Your task to perform on an android device: turn on showing notifications on the lock screen Image 0: 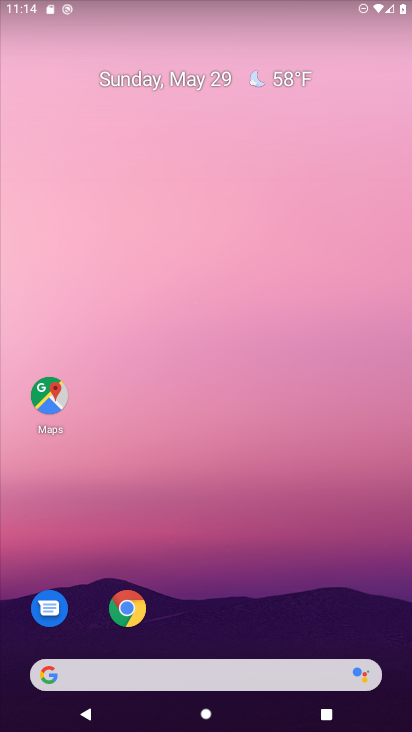
Step 0: drag from (230, 653) to (279, 208)
Your task to perform on an android device: turn on showing notifications on the lock screen Image 1: 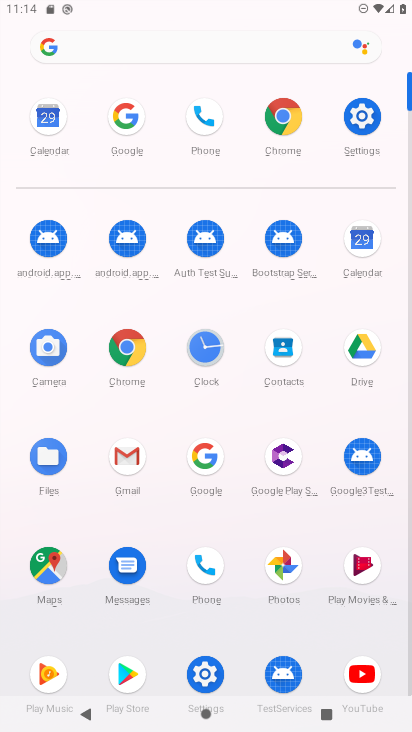
Step 1: click (217, 452)
Your task to perform on an android device: turn on showing notifications on the lock screen Image 2: 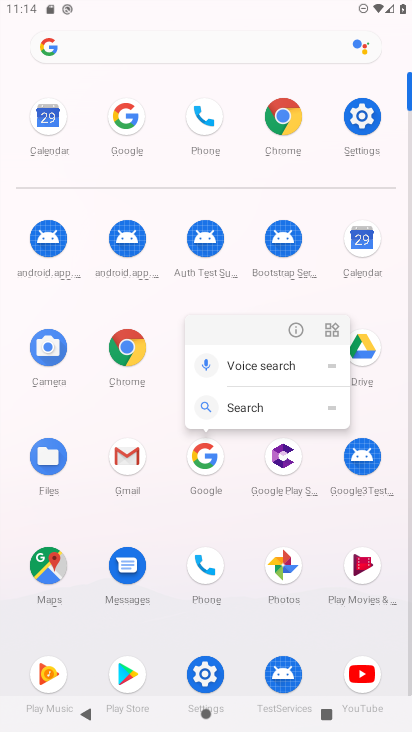
Step 2: click (200, 449)
Your task to perform on an android device: turn on showing notifications on the lock screen Image 3: 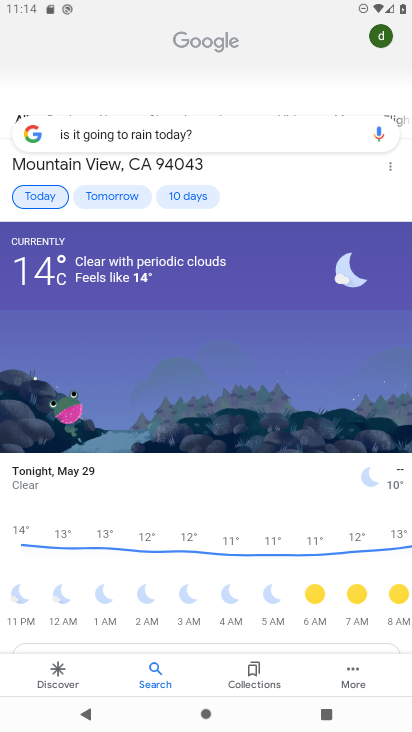
Step 3: click (226, 134)
Your task to perform on an android device: turn on showing notifications on the lock screen Image 4: 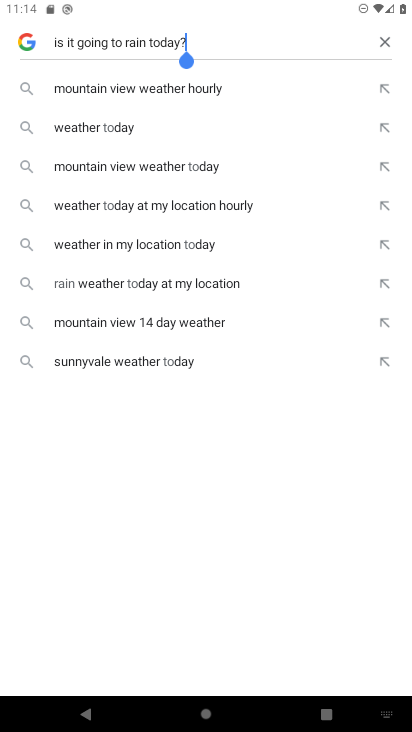
Step 4: click (378, 46)
Your task to perform on an android device: turn on showing notifications on the lock screen Image 5: 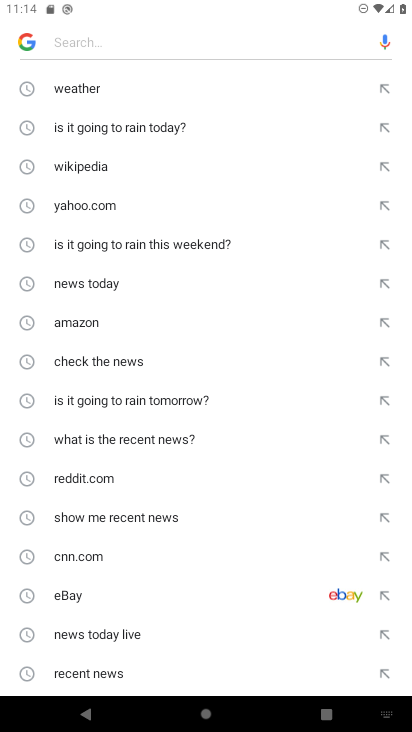
Step 5: press home button
Your task to perform on an android device: turn on showing notifications on the lock screen Image 6: 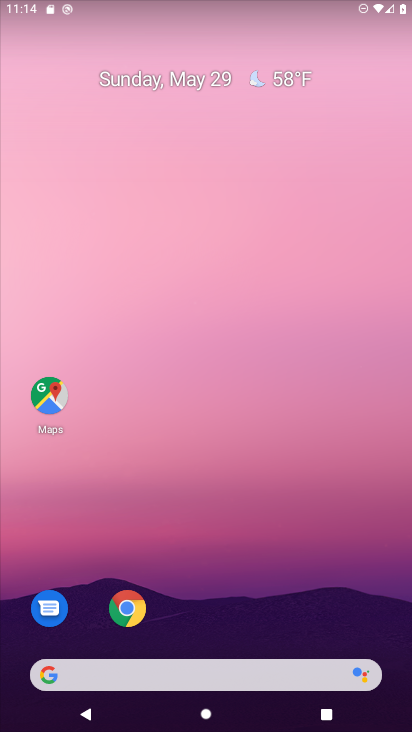
Step 6: drag from (248, 645) to (237, 248)
Your task to perform on an android device: turn on showing notifications on the lock screen Image 7: 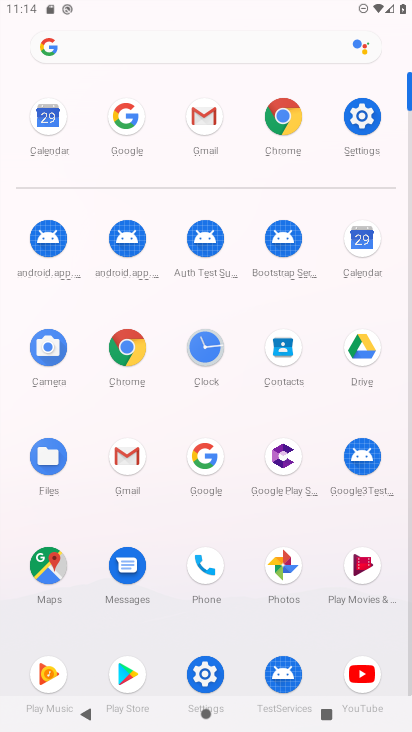
Step 7: click (366, 124)
Your task to perform on an android device: turn on showing notifications on the lock screen Image 8: 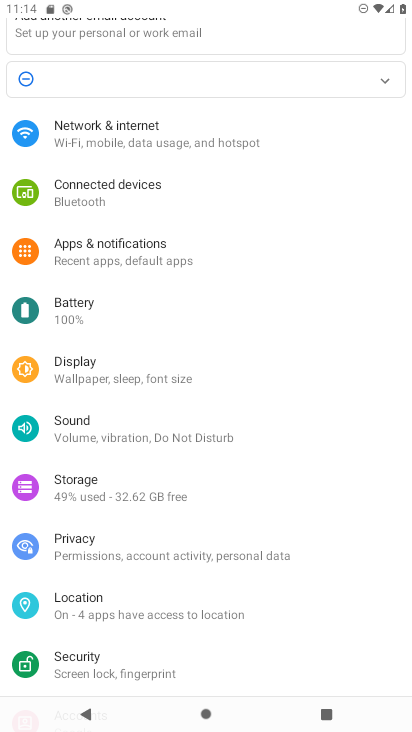
Step 8: click (91, 551)
Your task to perform on an android device: turn on showing notifications on the lock screen Image 9: 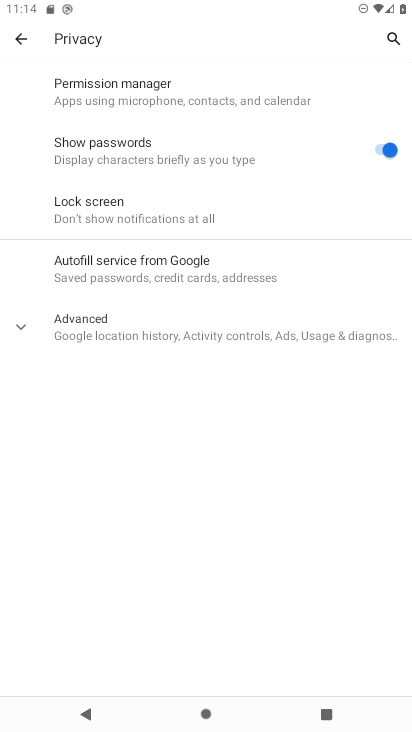
Step 9: click (69, 318)
Your task to perform on an android device: turn on showing notifications on the lock screen Image 10: 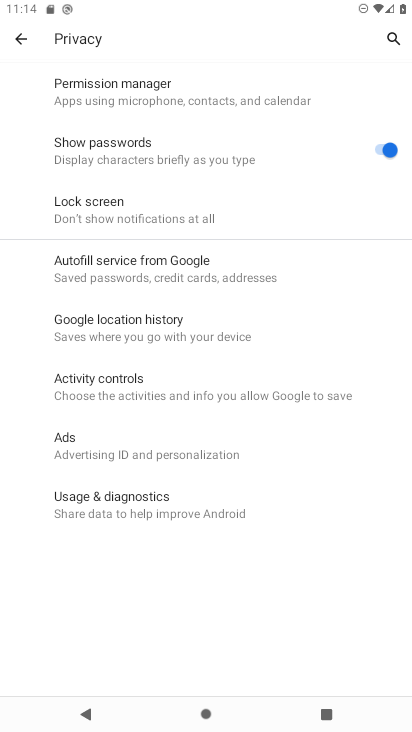
Step 10: click (122, 197)
Your task to perform on an android device: turn on showing notifications on the lock screen Image 11: 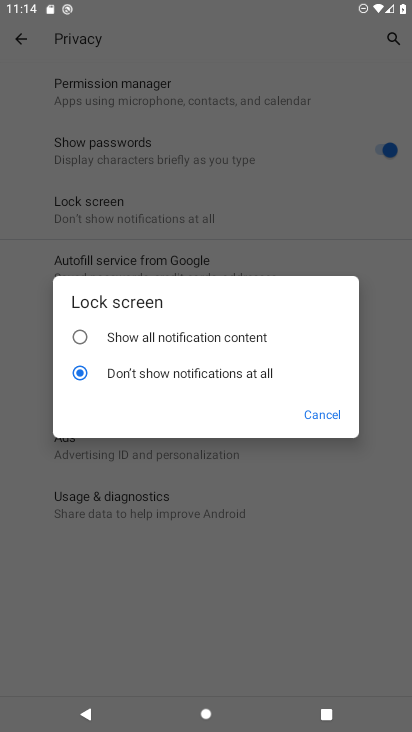
Step 11: click (145, 341)
Your task to perform on an android device: turn on showing notifications on the lock screen Image 12: 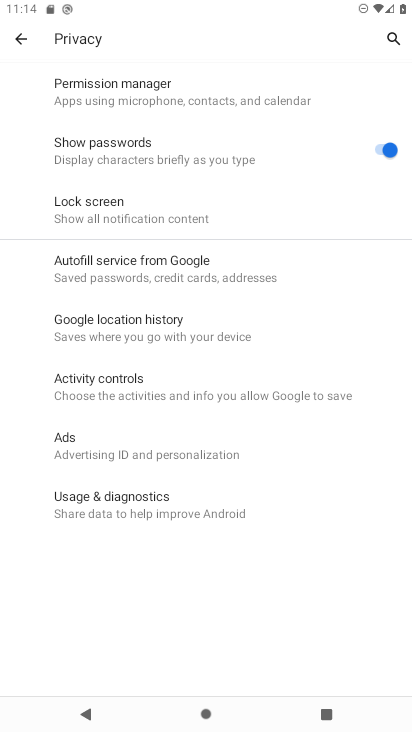
Step 12: task complete